Your task to perform on an android device: turn off location Image 0: 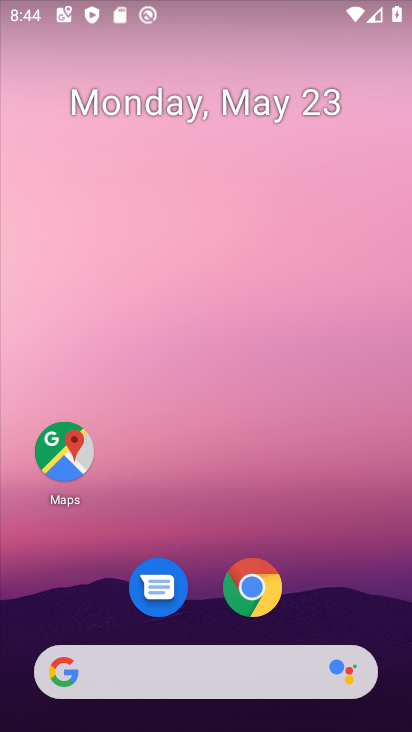
Step 0: drag from (339, 594) to (259, 114)
Your task to perform on an android device: turn off location Image 1: 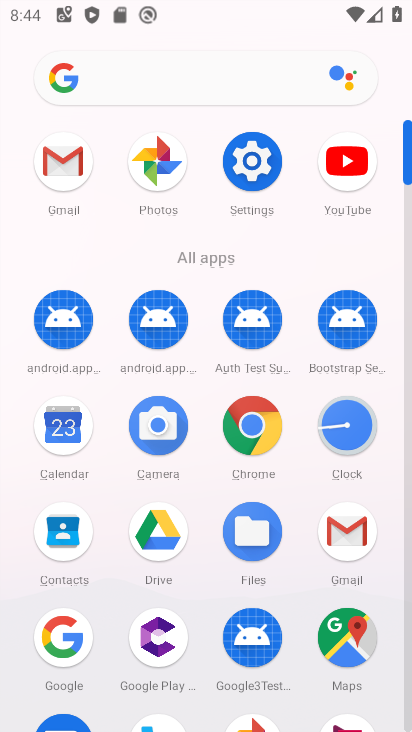
Step 1: click (264, 162)
Your task to perform on an android device: turn off location Image 2: 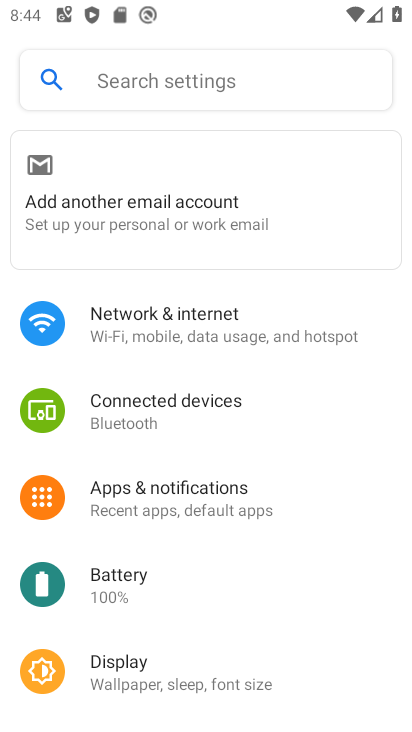
Step 2: drag from (195, 600) to (144, 222)
Your task to perform on an android device: turn off location Image 3: 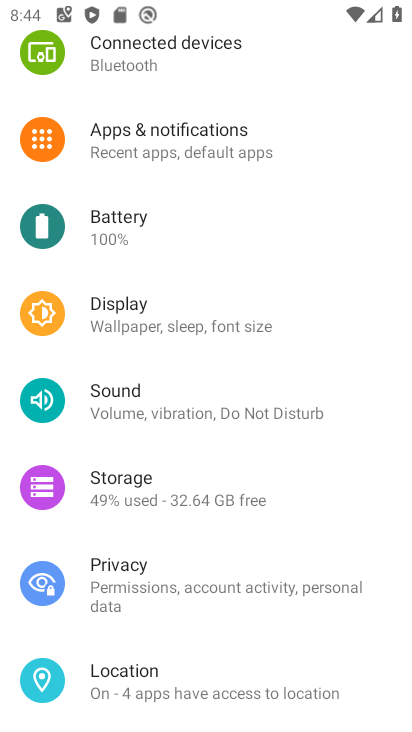
Step 3: click (161, 681)
Your task to perform on an android device: turn off location Image 4: 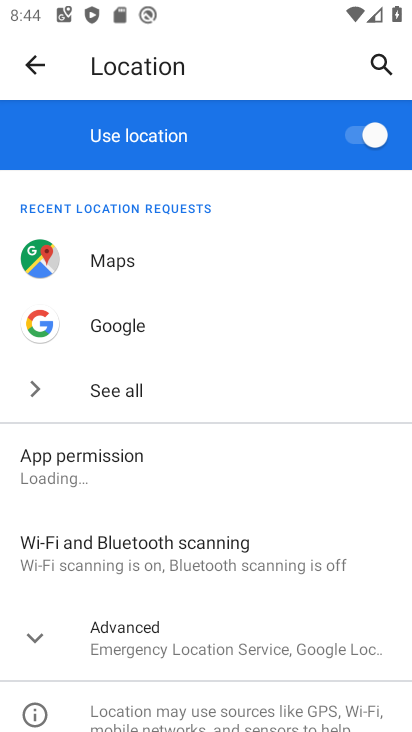
Step 4: click (356, 142)
Your task to perform on an android device: turn off location Image 5: 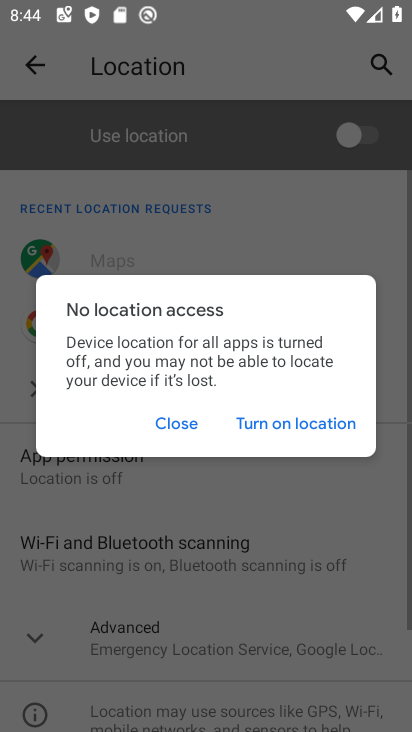
Step 5: task complete